Your task to perform on an android device: Search for "energizer triple a" on bestbuy.com, select the first entry, and add it to the cart. Image 0: 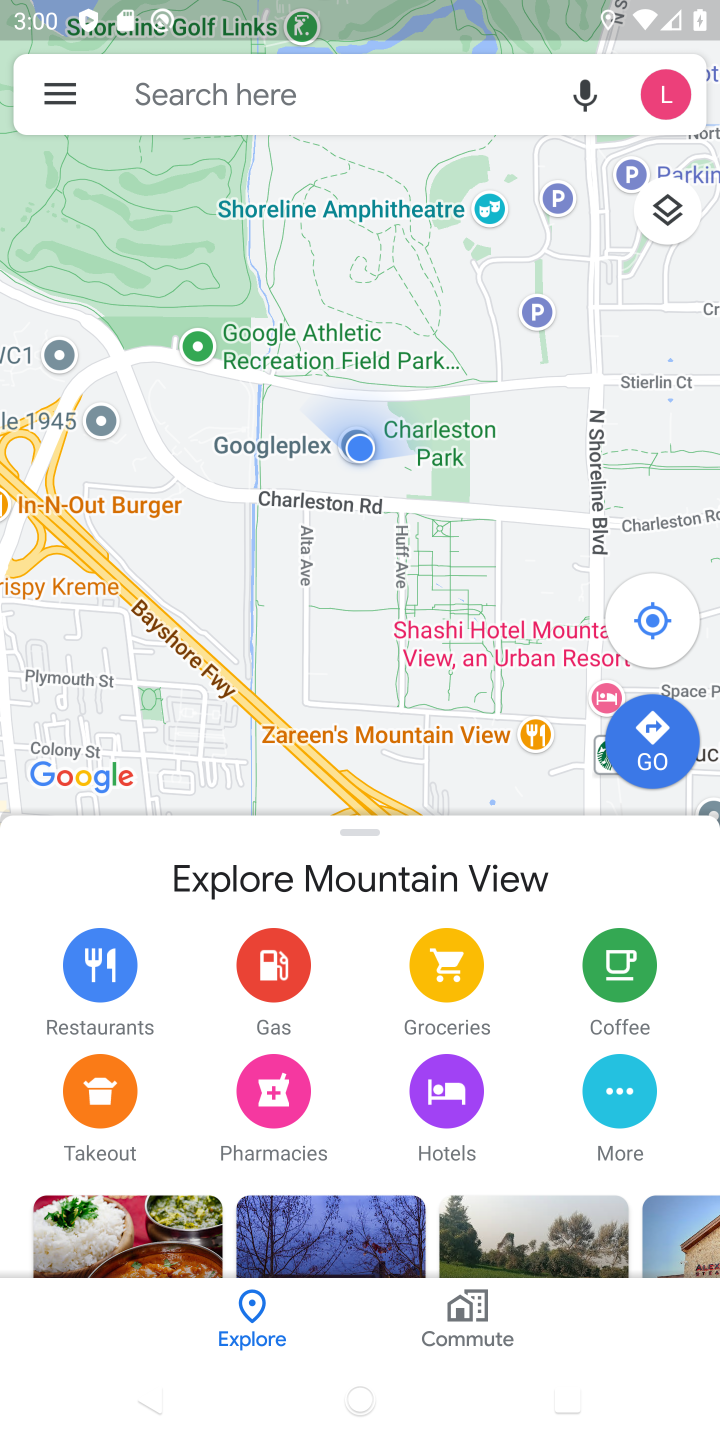
Step 0: press home button
Your task to perform on an android device: Search for "energizer triple a" on bestbuy.com, select the first entry, and add it to the cart. Image 1: 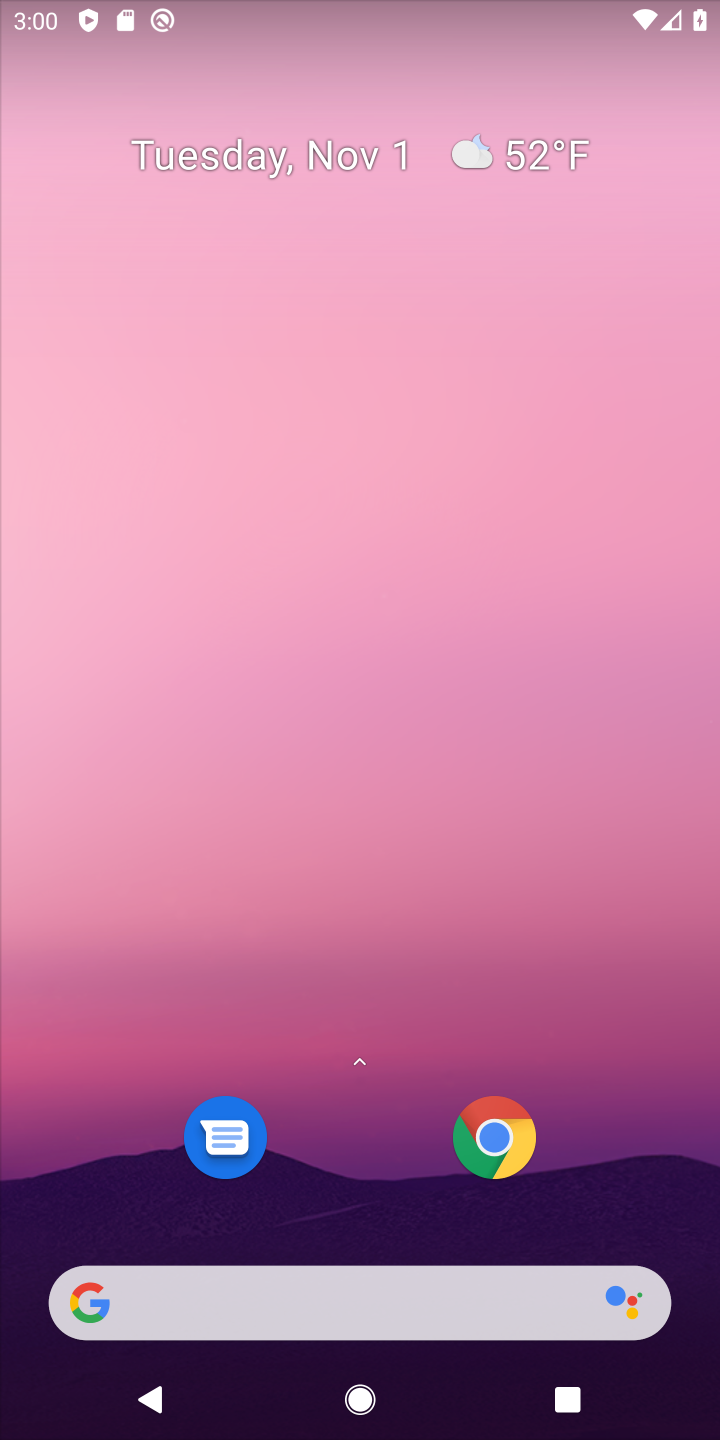
Step 1: click (378, 1283)
Your task to perform on an android device: Search for "energizer triple a" on bestbuy.com, select the first entry, and add it to the cart. Image 2: 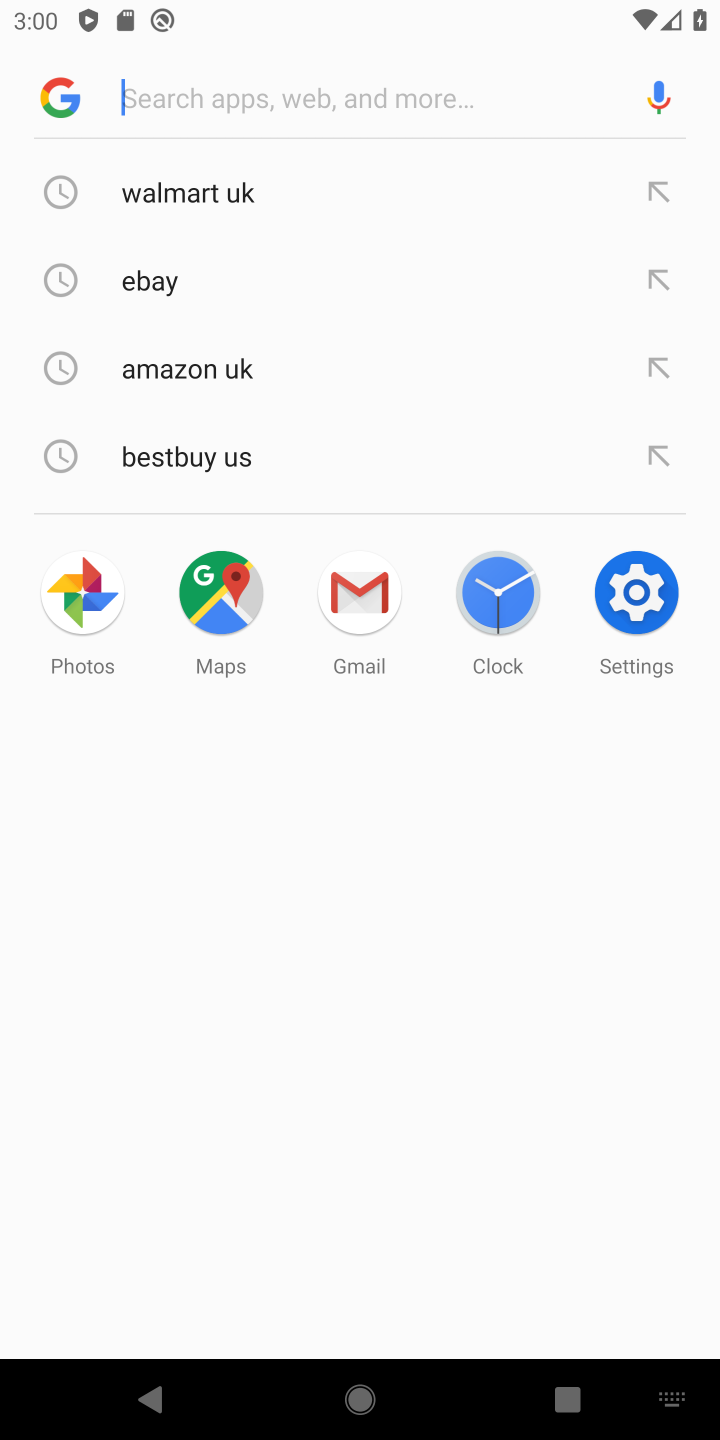
Step 2: type "bestbuy"
Your task to perform on an android device: Search for "energizer triple a" on bestbuy.com, select the first entry, and add it to the cart. Image 3: 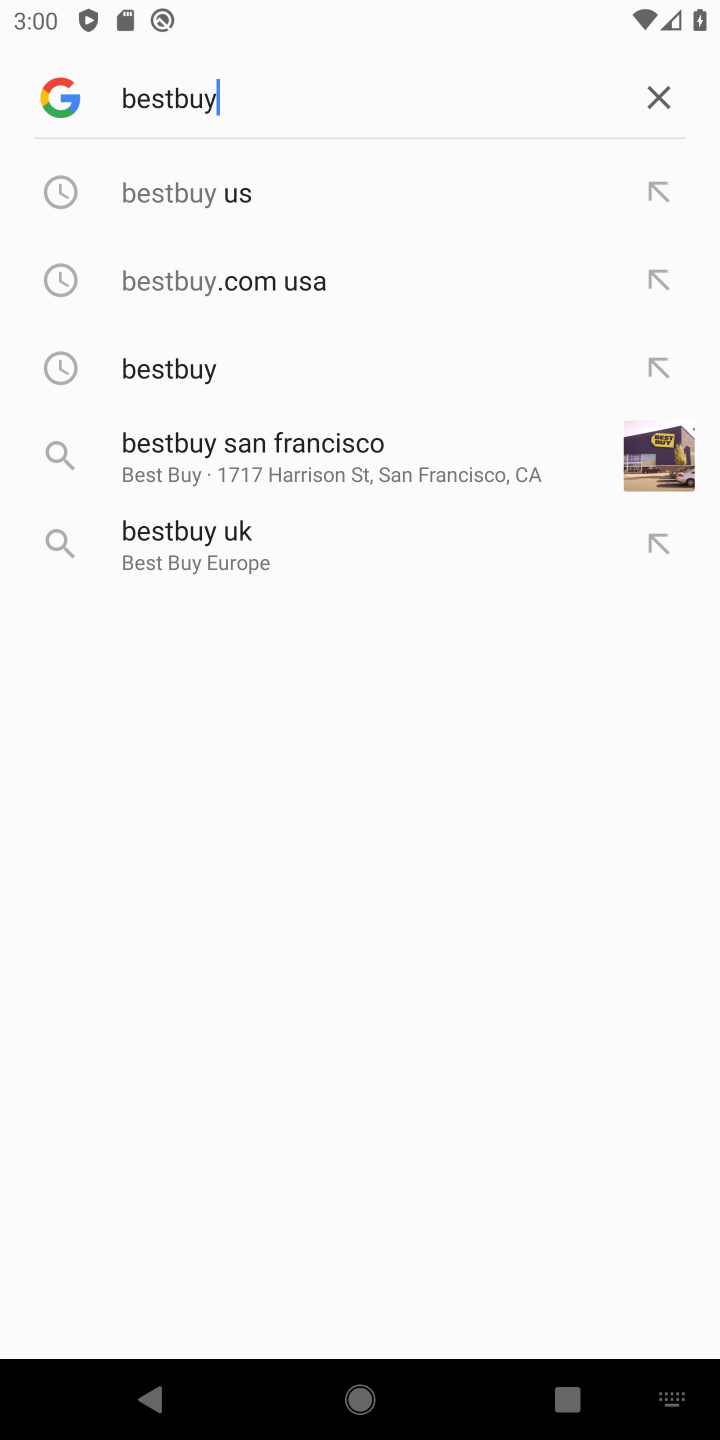
Step 3: click (262, 213)
Your task to perform on an android device: Search for "energizer triple a" on bestbuy.com, select the first entry, and add it to the cart. Image 4: 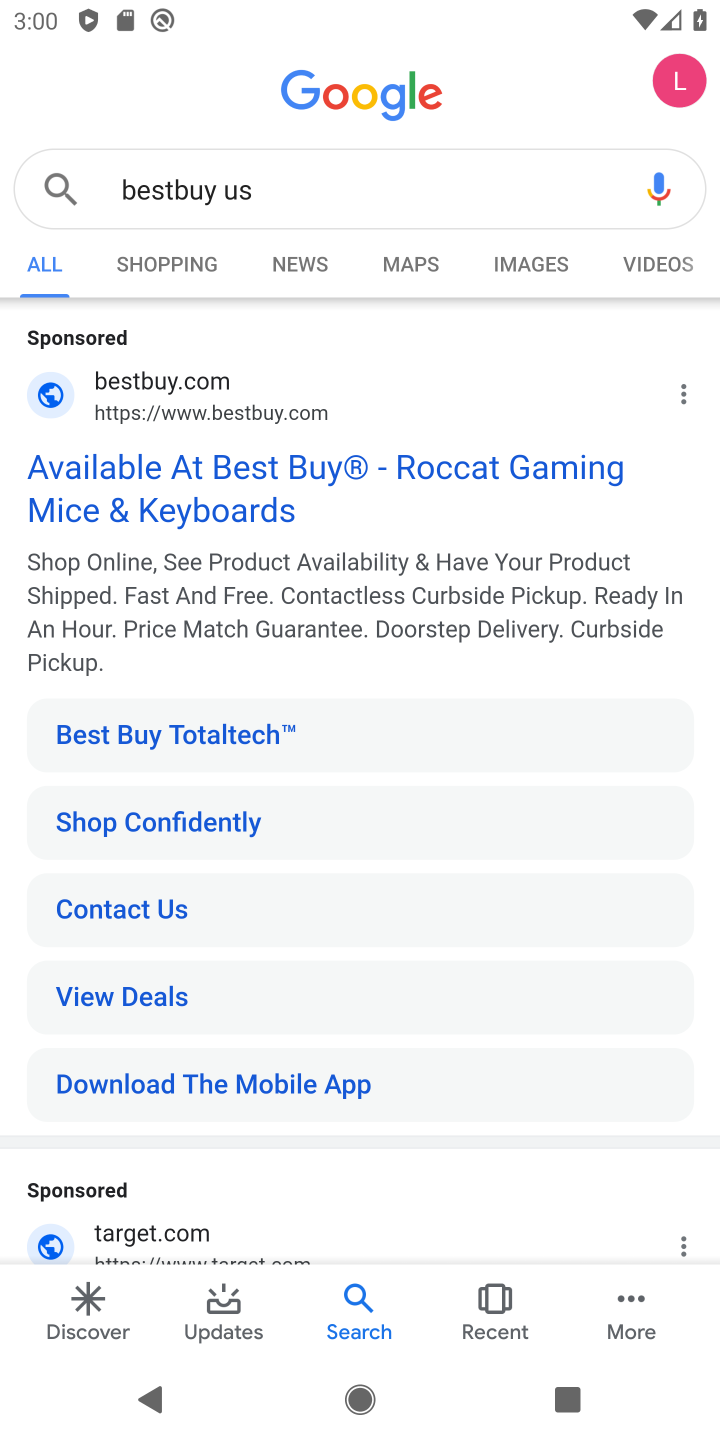
Step 4: click (130, 483)
Your task to perform on an android device: Search for "energizer triple a" on bestbuy.com, select the first entry, and add it to the cart. Image 5: 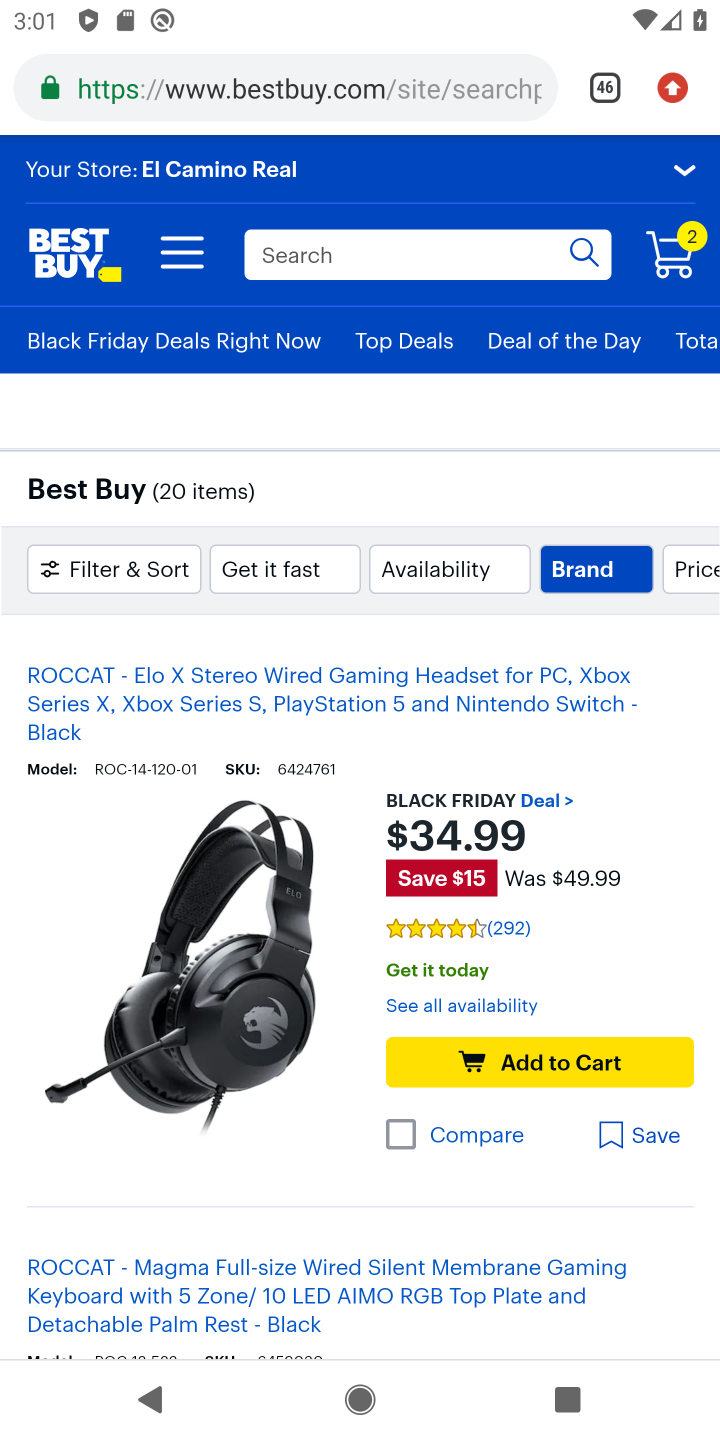
Step 5: click (521, 1065)
Your task to perform on an android device: Search for "energizer triple a" on bestbuy.com, select the first entry, and add it to the cart. Image 6: 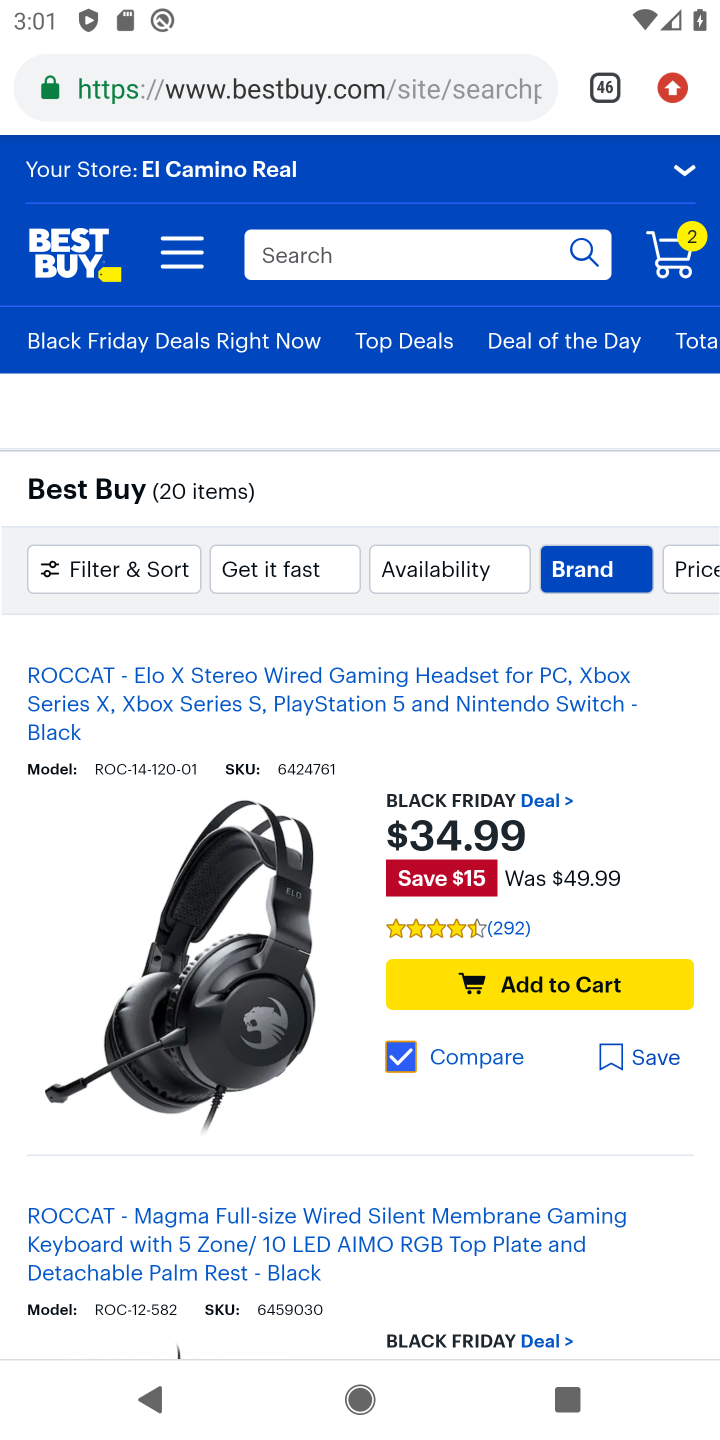
Step 6: task complete